Your task to perform on an android device: open wifi settings Image 0: 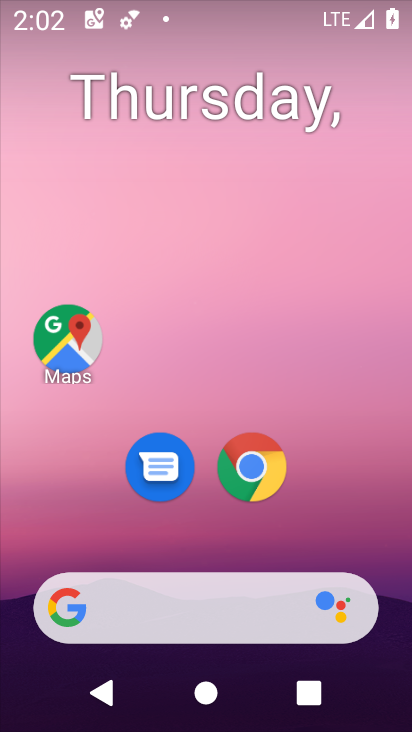
Step 0: drag from (208, 583) to (214, 0)
Your task to perform on an android device: open wifi settings Image 1: 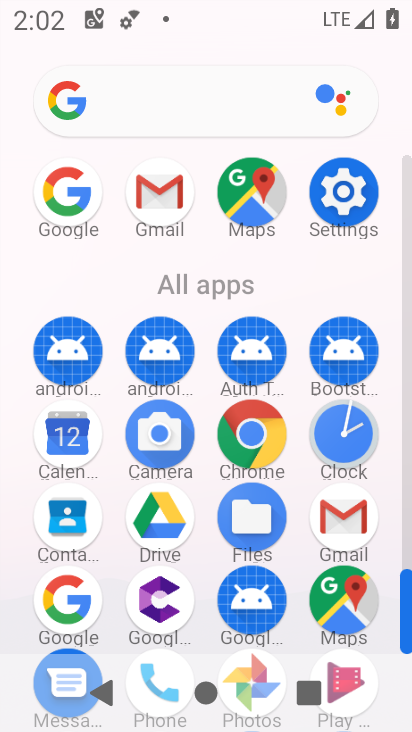
Step 1: click (368, 201)
Your task to perform on an android device: open wifi settings Image 2: 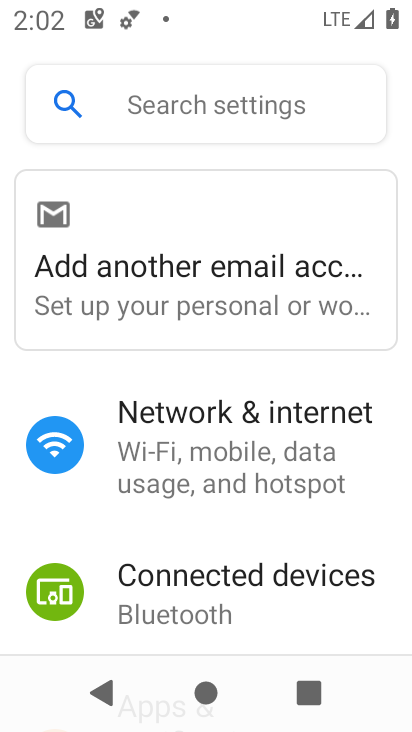
Step 2: click (274, 458)
Your task to perform on an android device: open wifi settings Image 3: 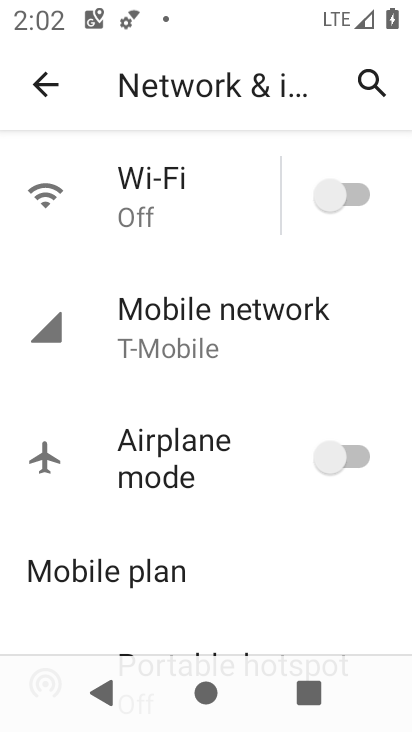
Step 3: click (169, 208)
Your task to perform on an android device: open wifi settings Image 4: 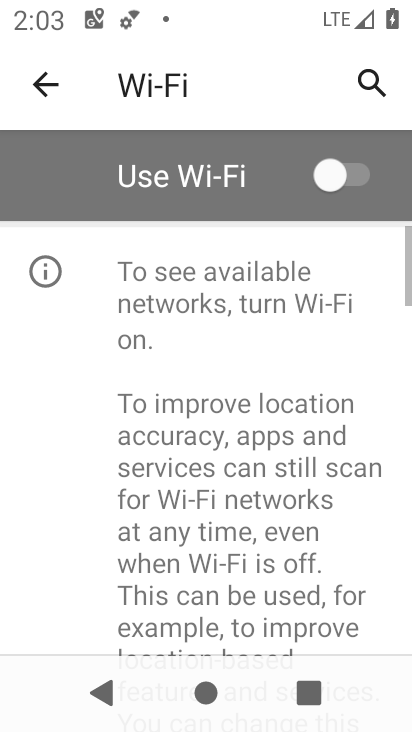
Step 4: task complete